Your task to perform on an android device: check the backup settings in the google photos Image 0: 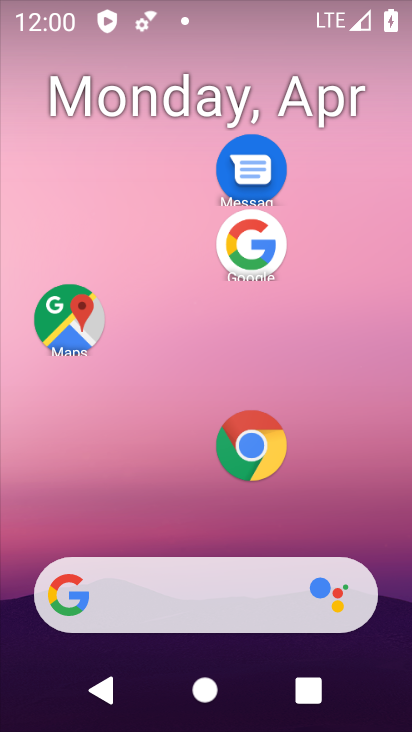
Step 0: drag from (187, 612) to (270, 125)
Your task to perform on an android device: check the backup settings in the google photos Image 1: 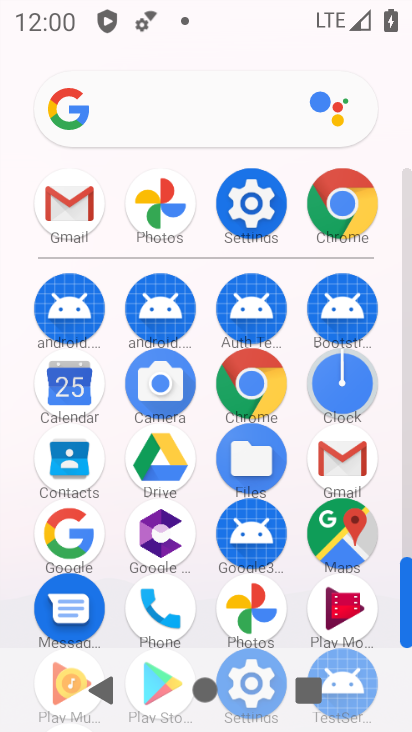
Step 1: click (252, 604)
Your task to perform on an android device: check the backup settings in the google photos Image 2: 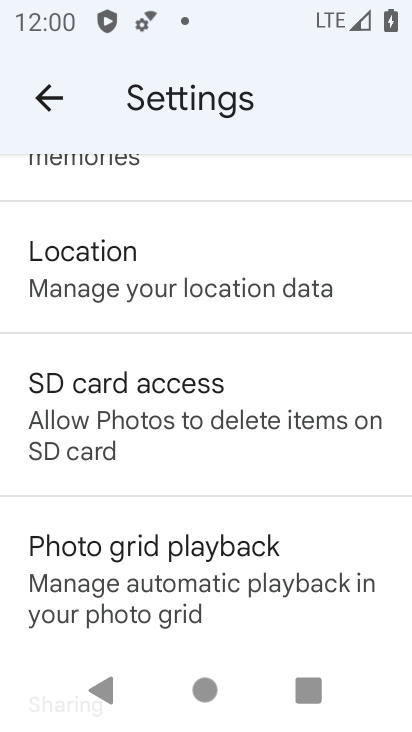
Step 2: drag from (149, 211) to (162, 546)
Your task to perform on an android device: check the backup settings in the google photos Image 3: 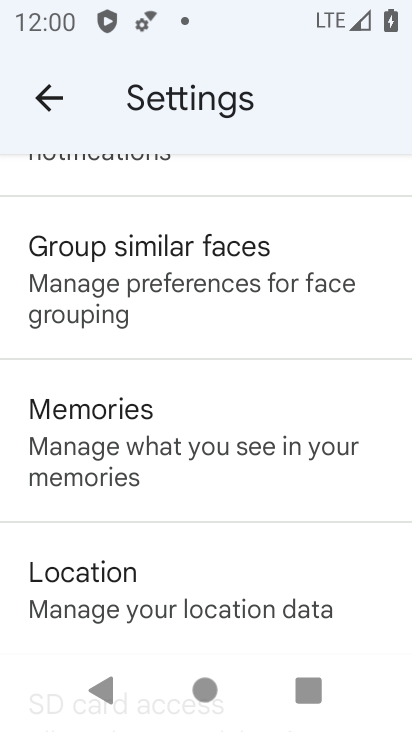
Step 3: drag from (230, 320) to (209, 630)
Your task to perform on an android device: check the backup settings in the google photos Image 4: 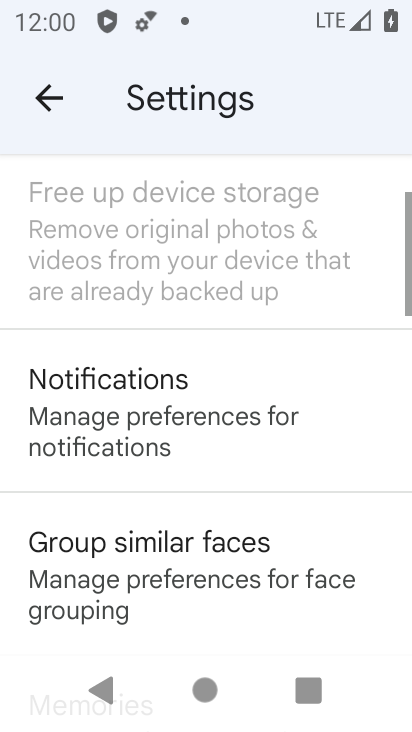
Step 4: drag from (255, 263) to (238, 594)
Your task to perform on an android device: check the backup settings in the google photos Image 5: 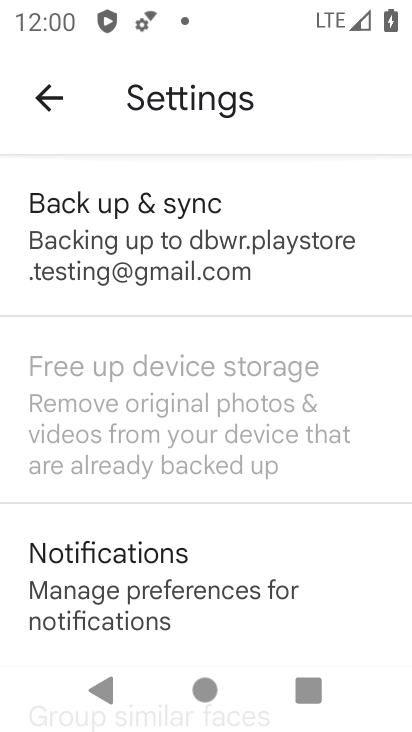
Step 5: click (181, 243)
Your task to perform on an android device: check the backup settings in the google photos Image 6: 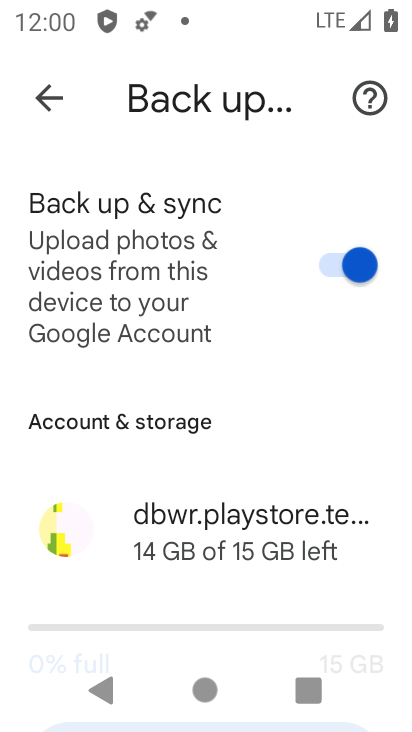
Step 6: task complete